Your task to perform on an android device: Open eBay Image 0: 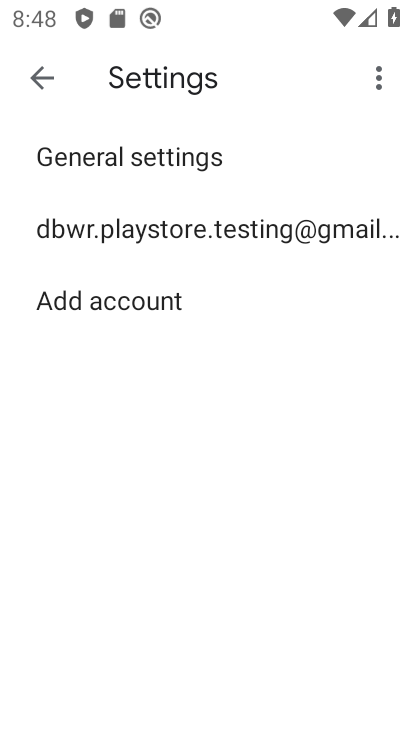
Step 0: press home button
Your task to perform on an android device: Open eBay Image 1: 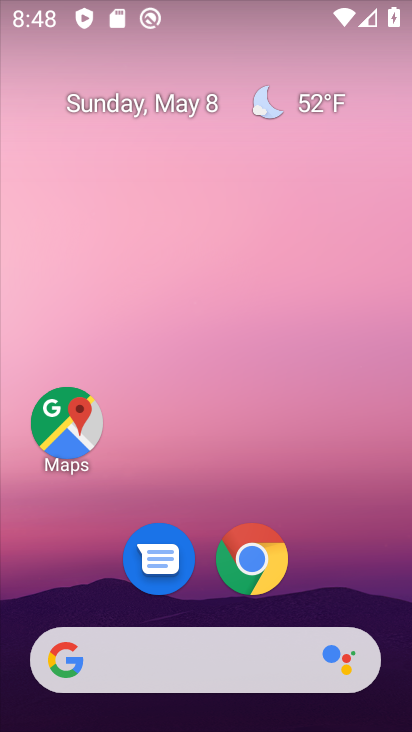
Step 1: click (264, 583)
Your task to perform on an android device: Open eBay Image 2: 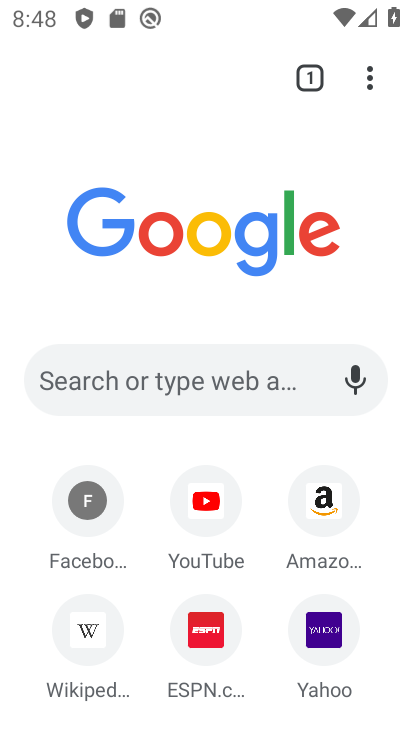
Step 2: click (219, 380)
Your task to perform on an android device: Open eBay Image 3: 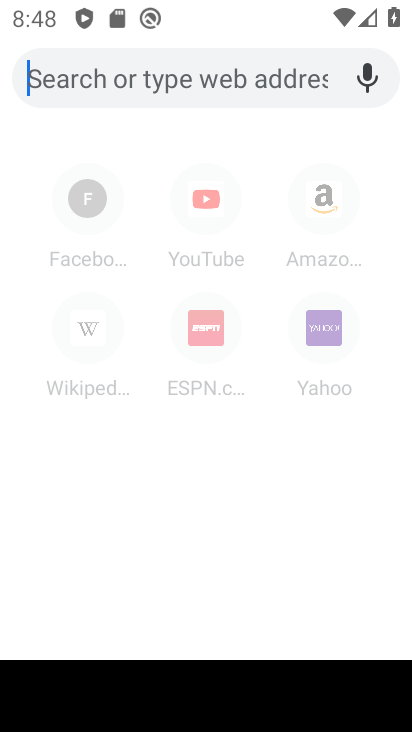
Step 3: type "ebay"
Your task to perform on an android device: Open eBay Image 4: 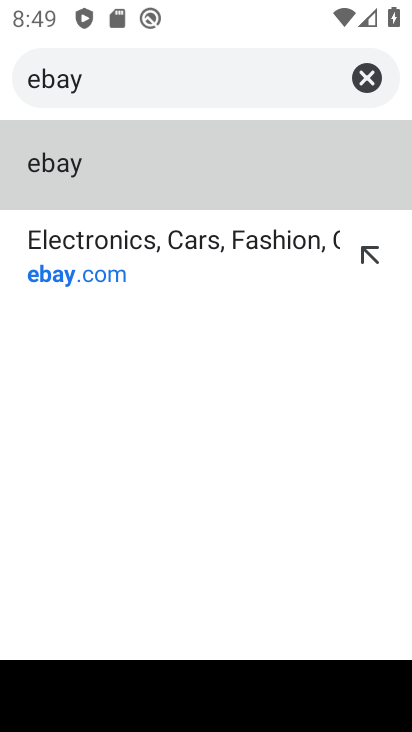
Step 4: click (178, 258)
Your task to perform on an android device: Open eBay Image 5: 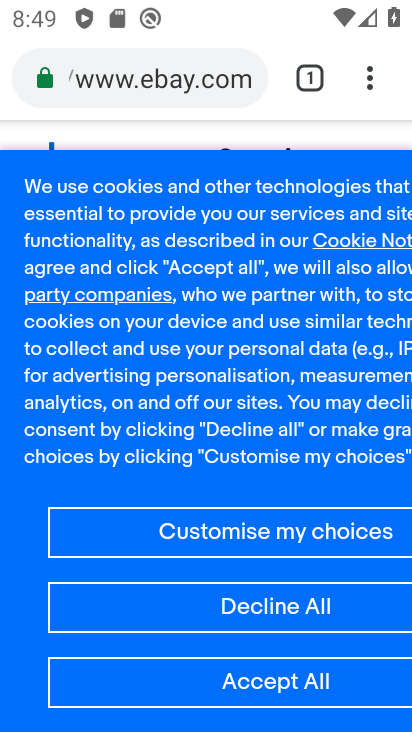
Step 5: click (309, 614)
Your task to perform on an android device: Open eBay Image 6: 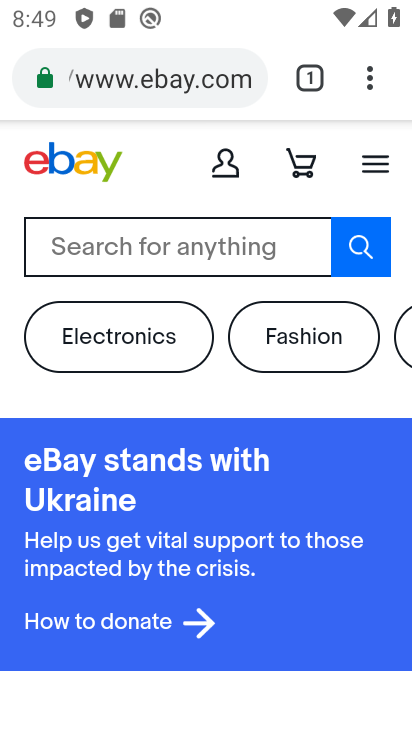
Step 6: task complete